Your task to perform on an android device: toggle priority inbox in the gmail app Image 0: 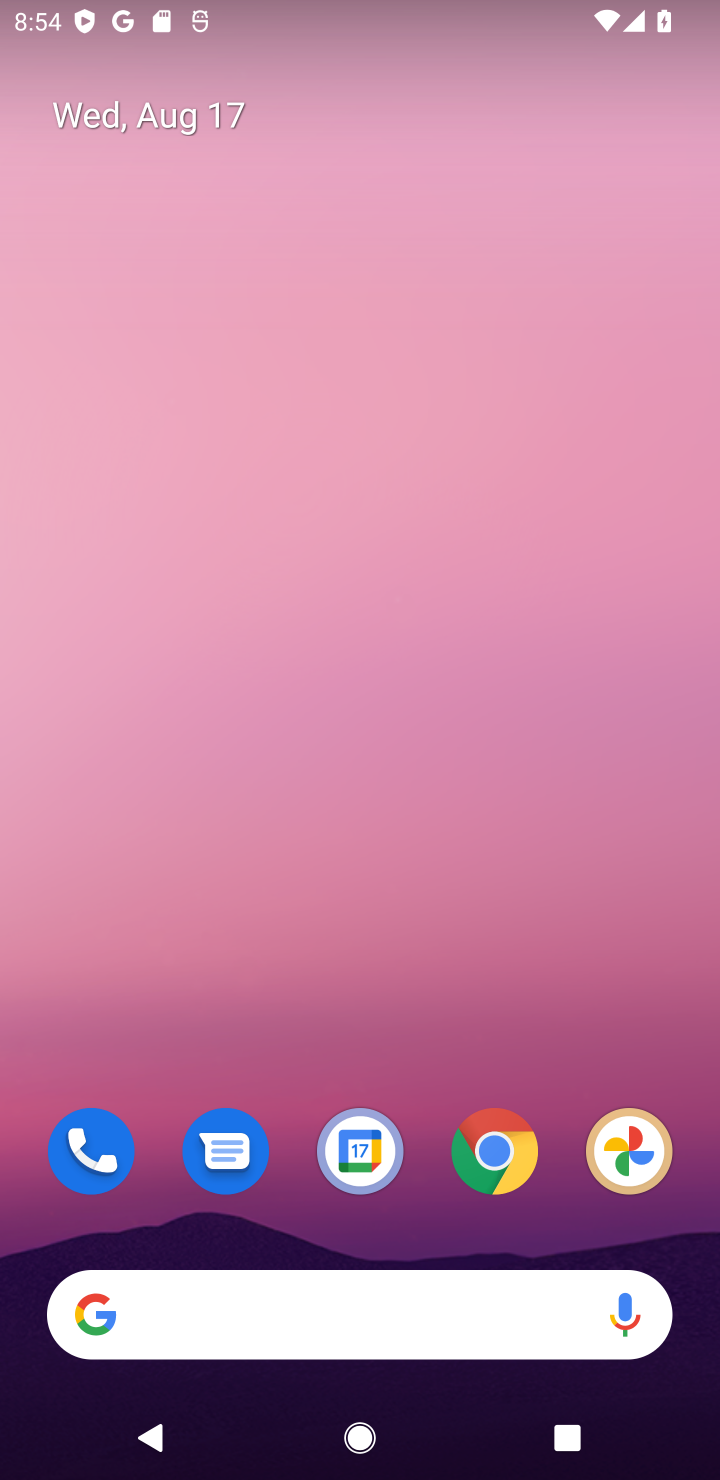
Step 0: drag from (323, 1099) to (318, 546)
Your task to perform on an android device: toggle priority inbox in the gmail app Image 1: 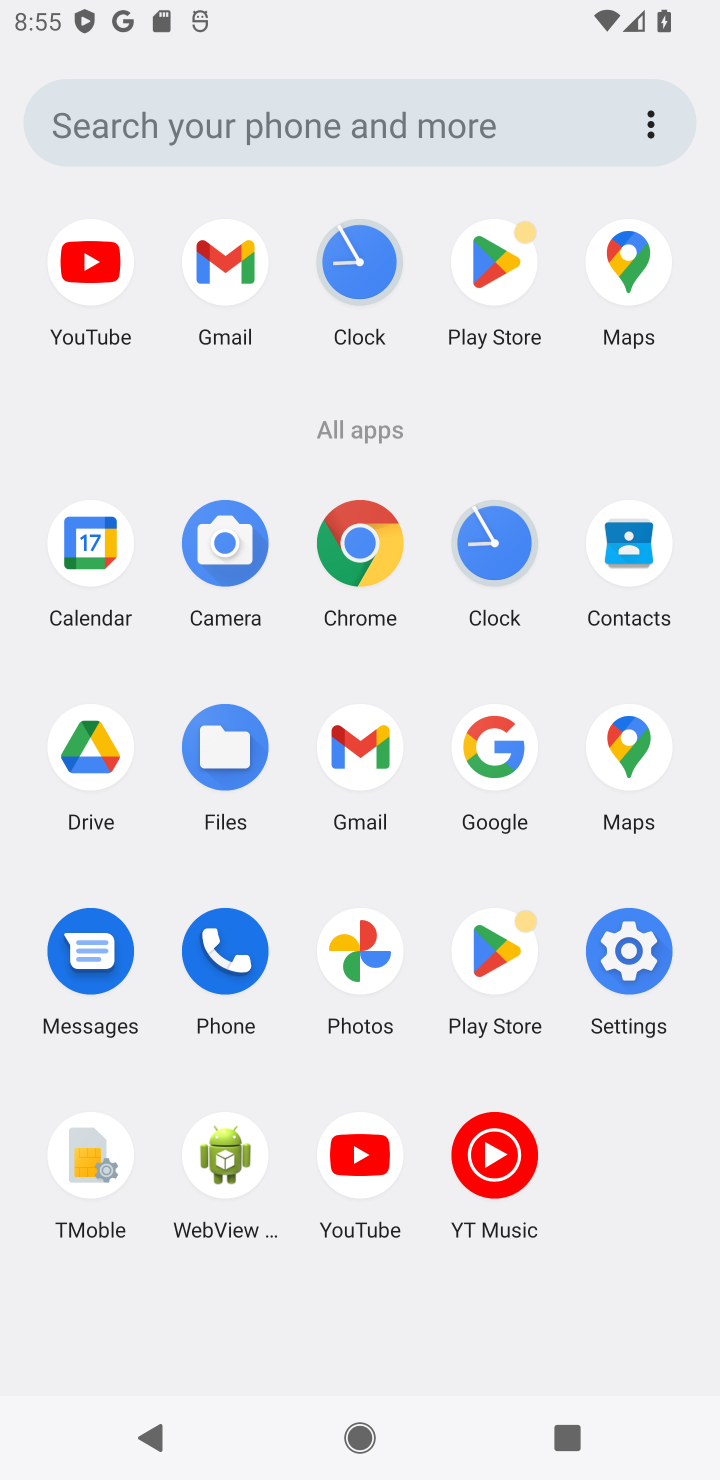
Step 1: click (362, 766)
Your task to perform on an android device: toggle priority inbox in the gmail app Image 2: 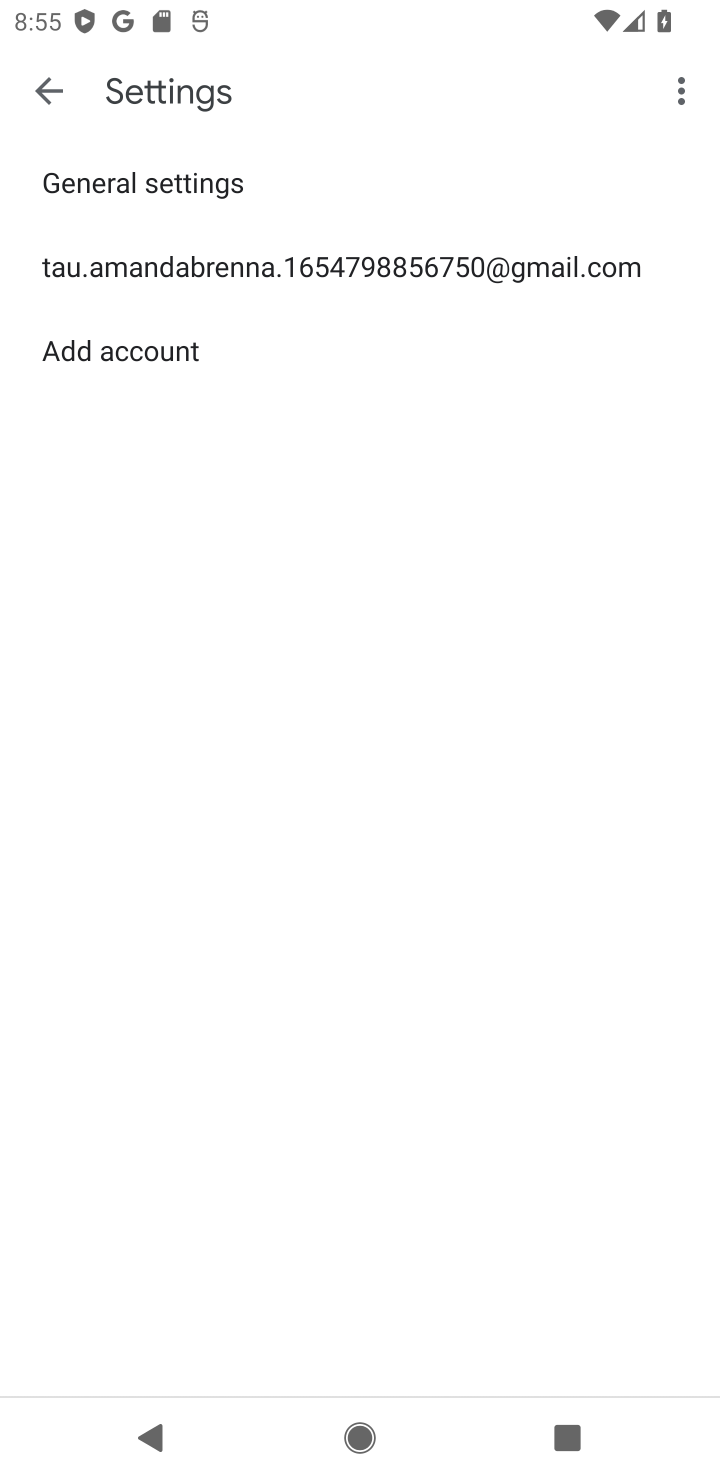
Step 2: click (299, 271)
Your task to perform on an android device: toggle priority inbox in the gmail app Image 3: 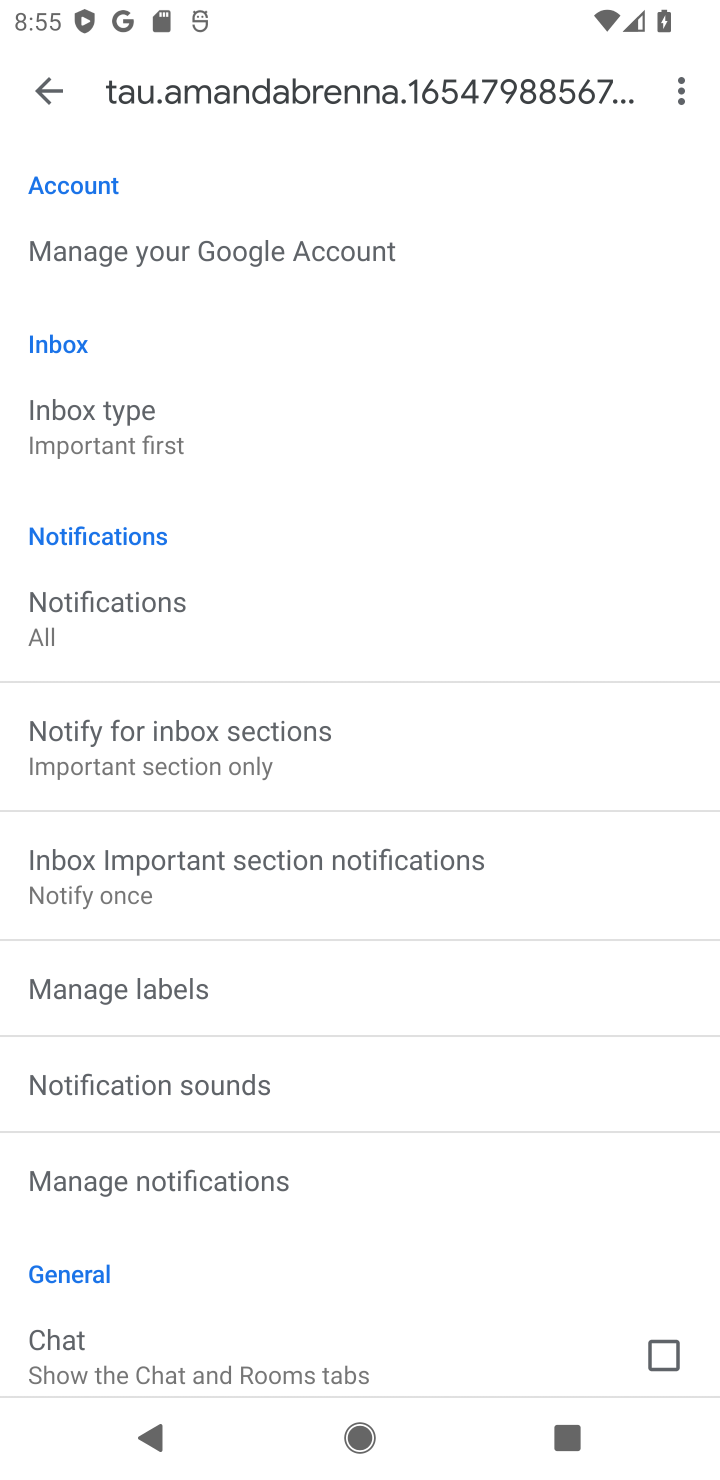
Step 3: click (111, 412)
Your task to perform on an android device: toggle priority inbox in the gmail app Image 4: 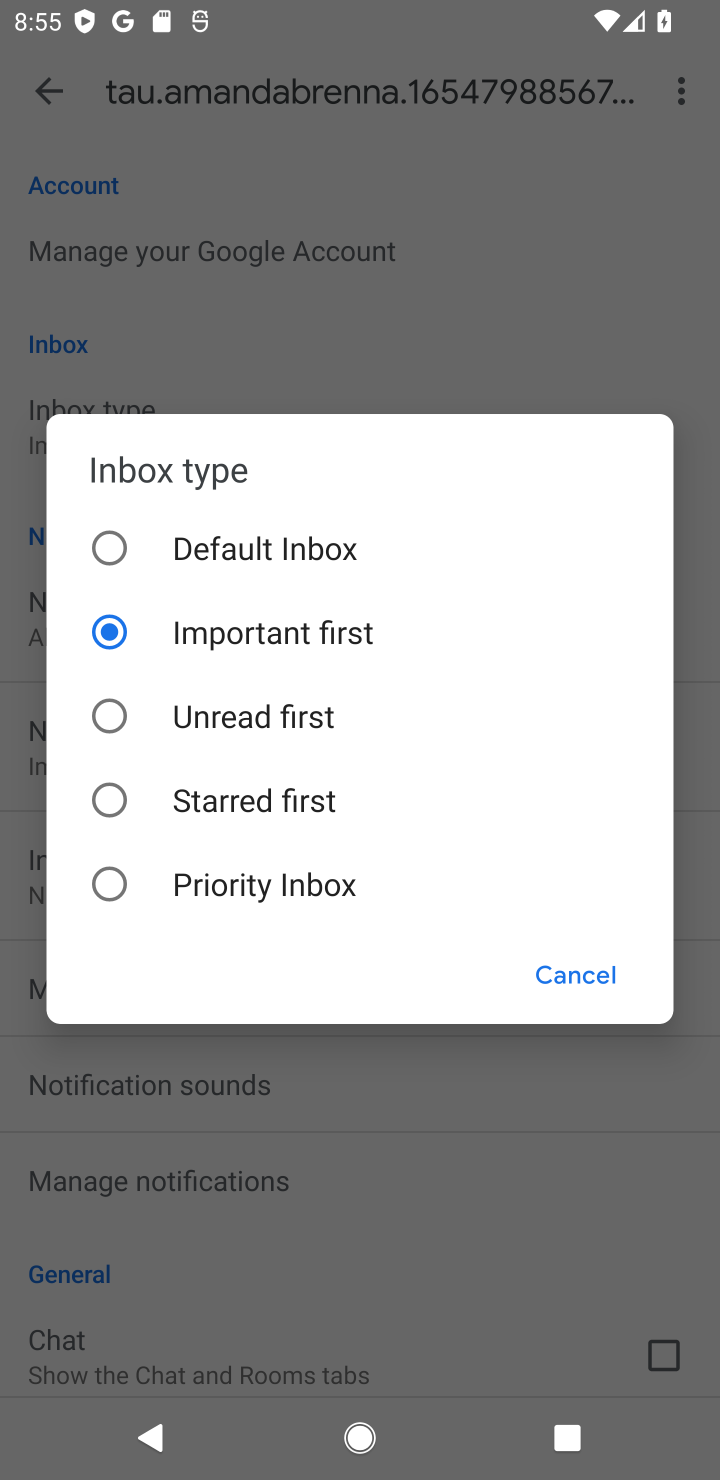
Step 4: click (111, 903)
Your task to perform on an android device: toggle priority inbox in the gmail app Image 5: 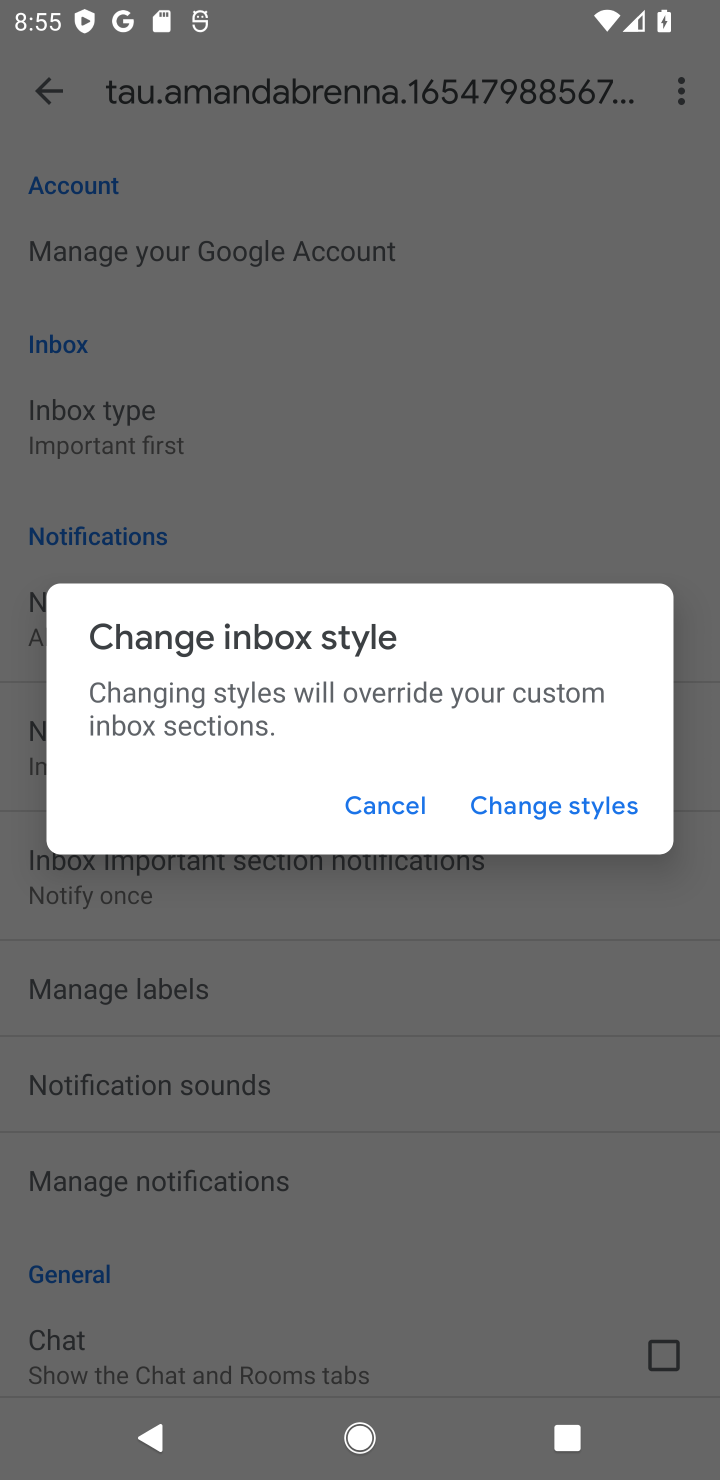
Step 5: click (541, 798)
Your task to perform on an android device: toggle priority inbox in the gmail app Image 6: 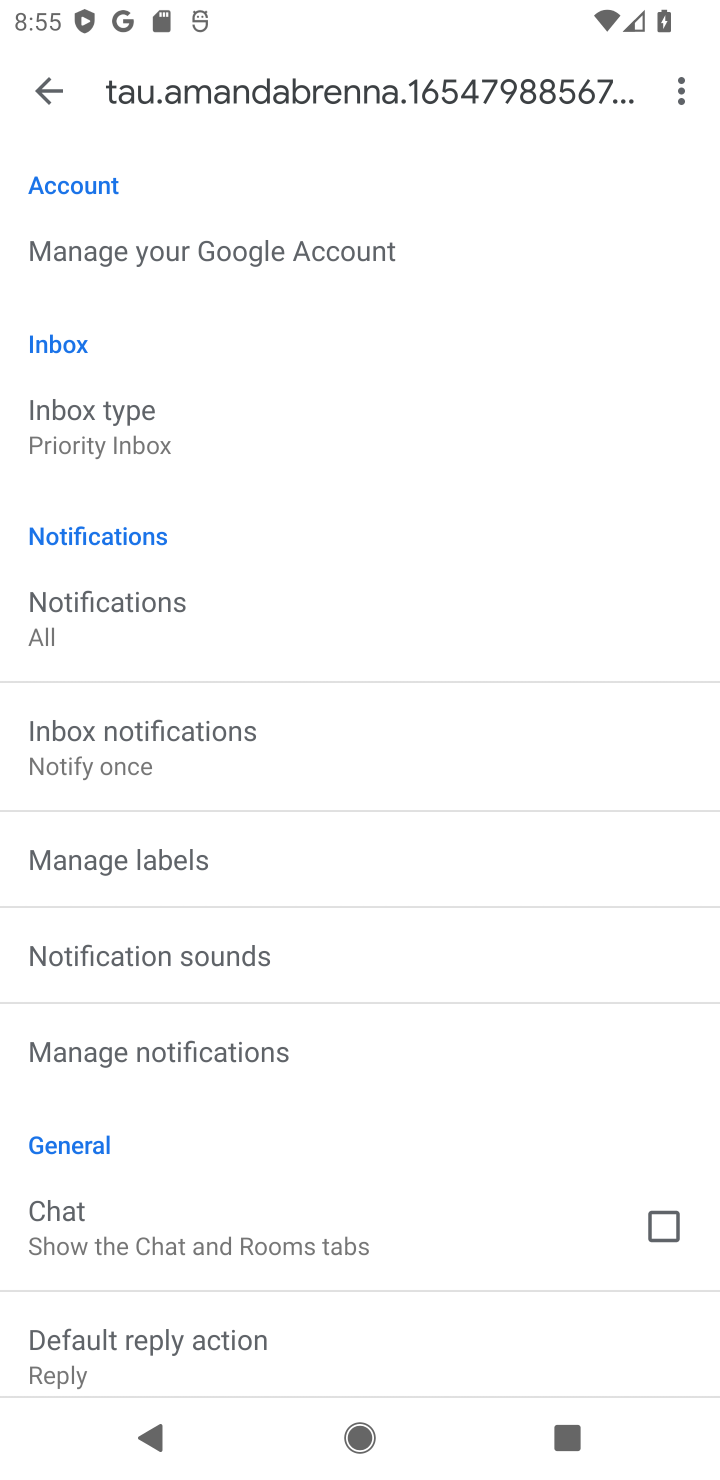
Step 6: task complete